Your task to perform on an android device: change your default location settings in chrome Image 0: 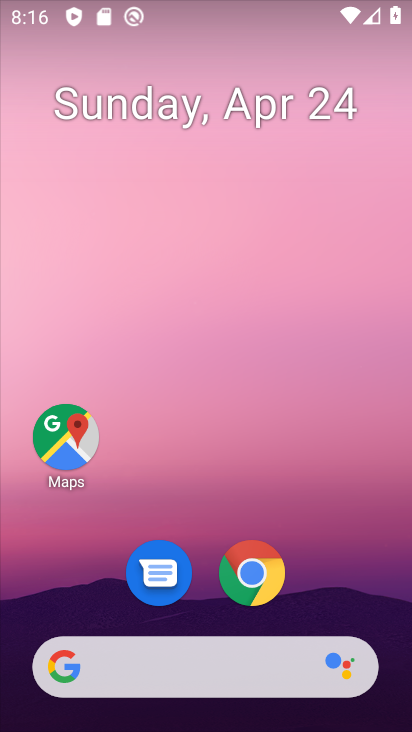
Step 0: click (263, 574)
Your task to perform on an android device: change your default location settings in chrome Image 1: 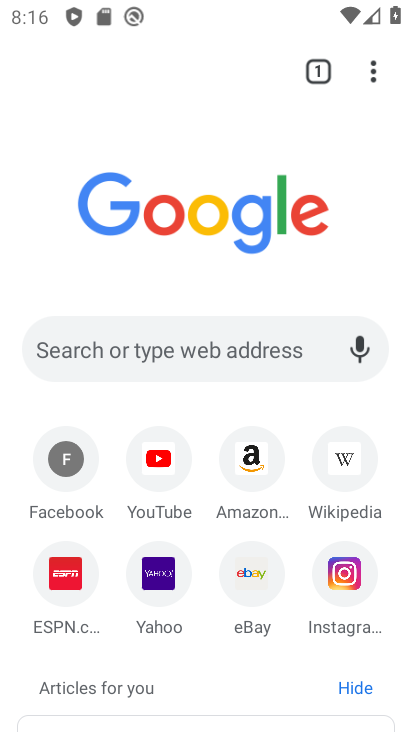
Step 1: drag from (374, 73) to (137, 610)
Your task to perform on an android device: change your default location settings in chrome Image 2: 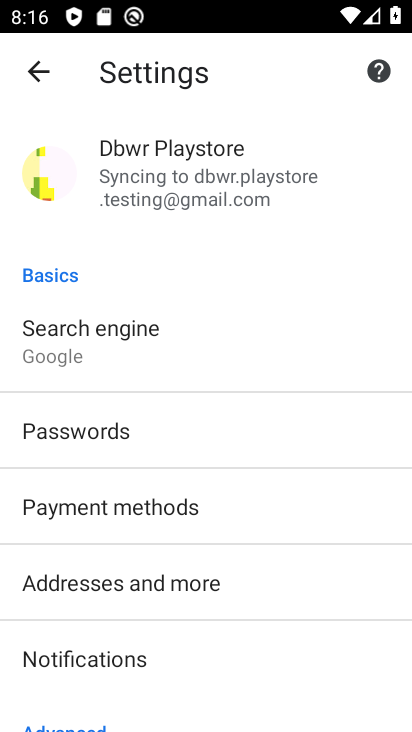
Step 2: drag from (221, 682) to (227, 282)
Your task to perform on an android device: change your default location settings in chrome Image 3: 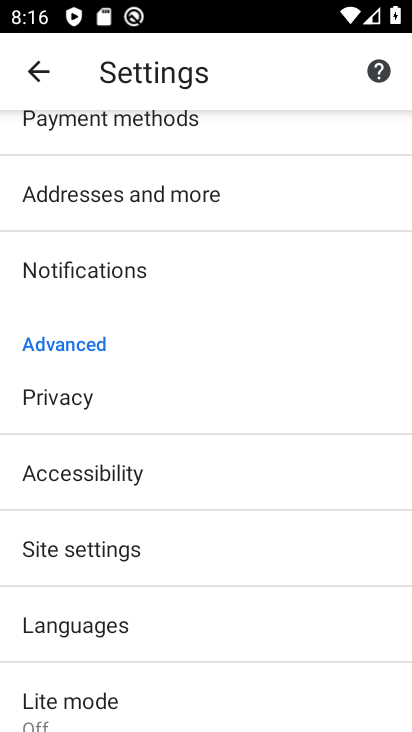
Step 3: click (73, 545)
Your task to perform on an android device: change your default location settings in chrome Image 4: 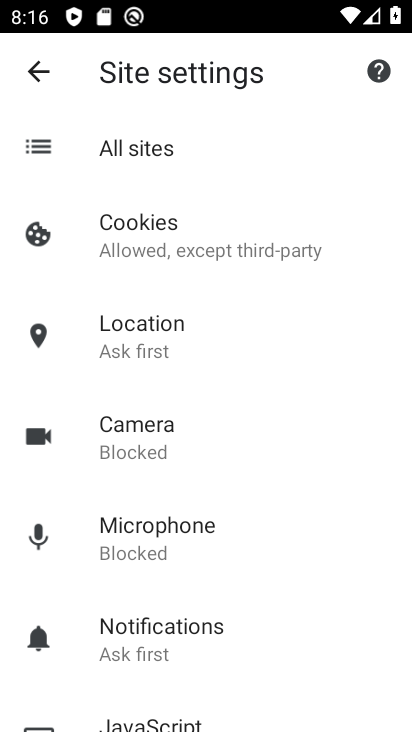
Step 4: click (153, 333)
Your task to perform on an android device: change your default location settings in chrome Image 5: 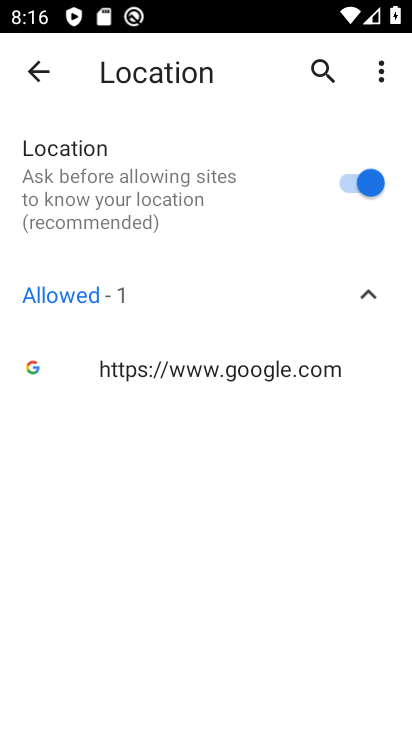
Step 5: click (367, 183)
Your task to perform on an android device: change your default location settings in chrome Image 6: 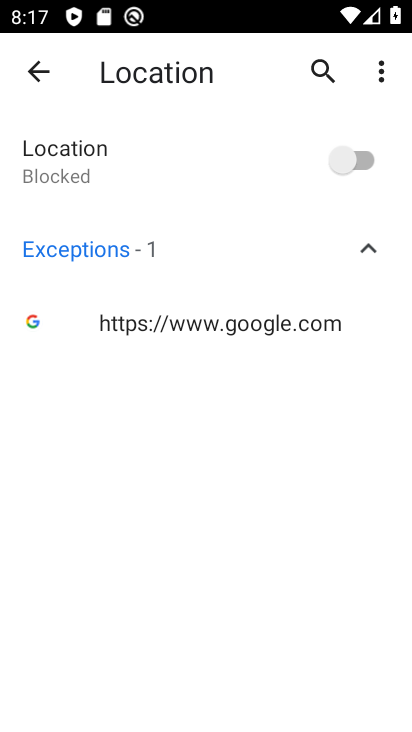
Step 6: task complete